Your task to perform on an android device: What is the recent news? Image 0: 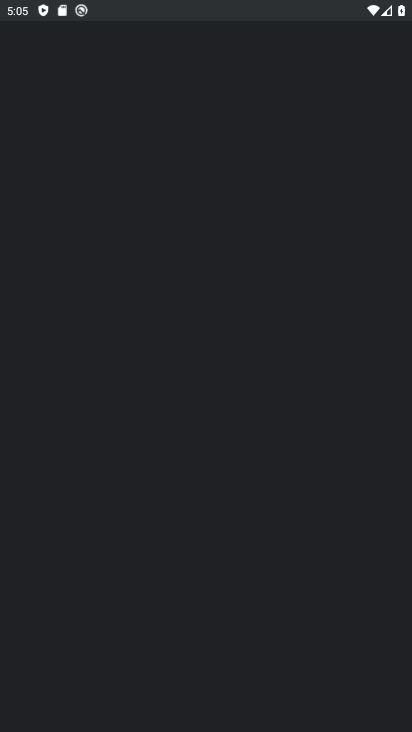
Step 0: press home button
Your task to perform on an android device: What is the recent news? Image 1: 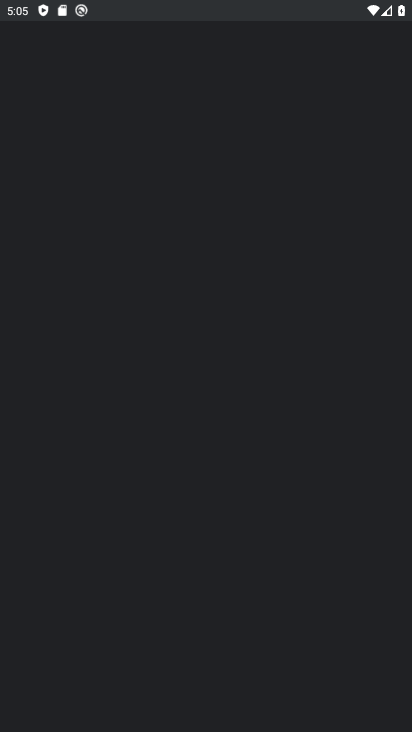
Step 1: click (155, 181)
Your task to perform on an android device: What is the recent news? Image 2: 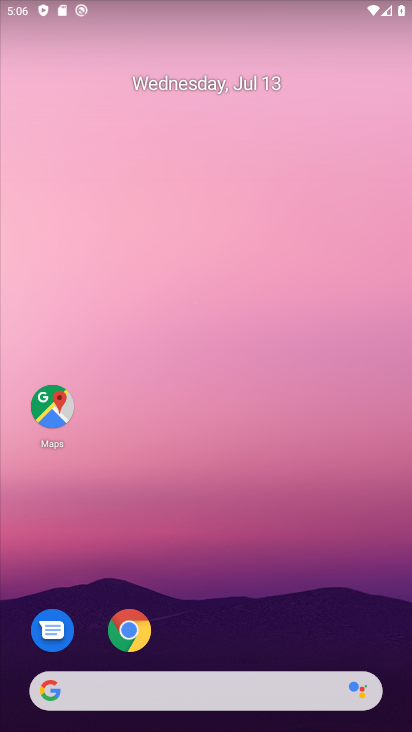
Step 2: click (130, 634)
Your task to perform on an android device: What is the recent news? Image 3: 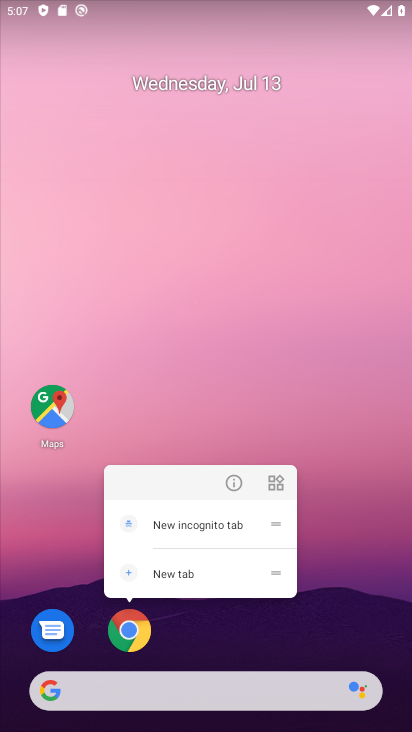
Step 3: click (130, 641)
Your task to perform on an android device: What is the recent news? Image 4: 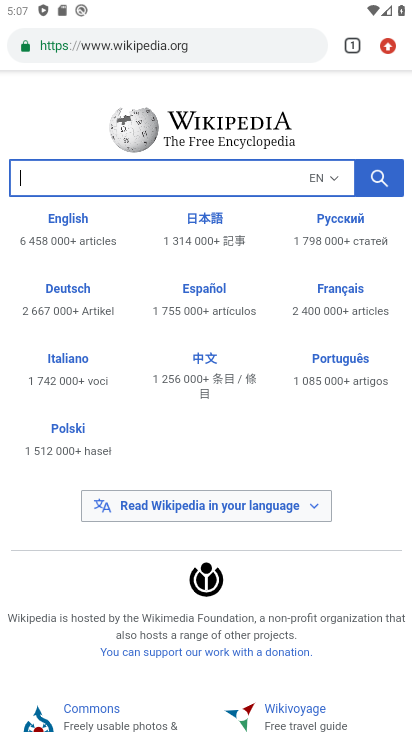
Step 4: click (128, 48)
Your task to perform on an android device: What is the recent news? Image 5: 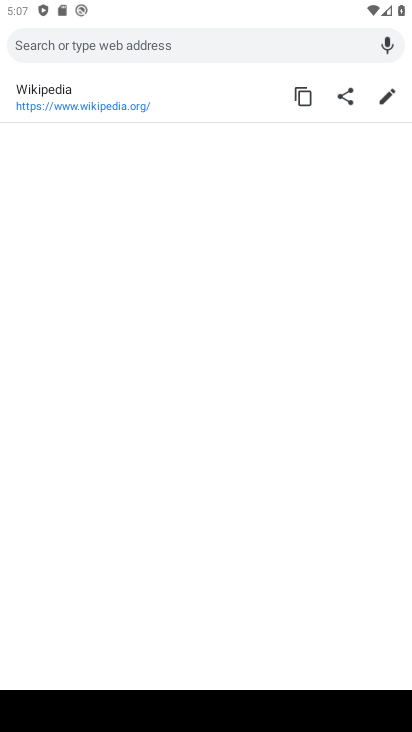
Step 5: type "What is the recent news?"
Your task to perform on an android device: What is the recent news? Image 6: 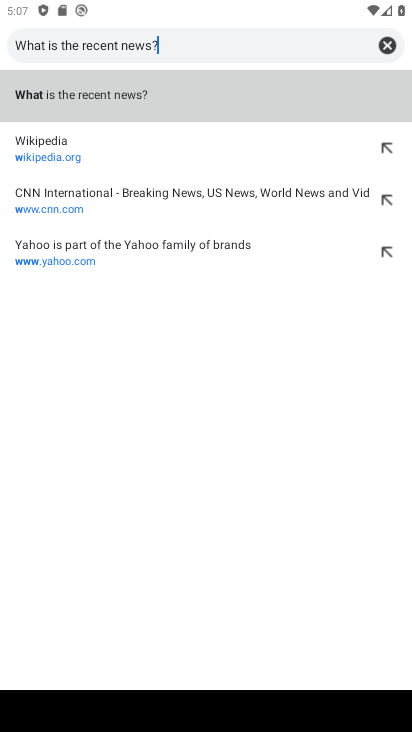
Step 6: type ""
Your task to perform on an android device: What is the recent news? Image 7: 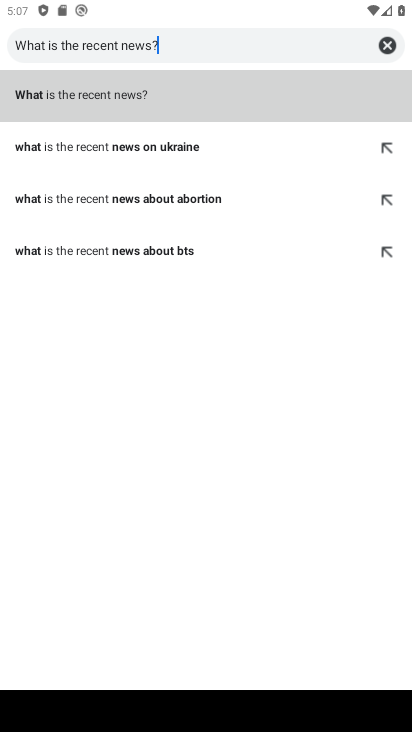
Step 7: click (99, 93)
Your task to perform on an android device: What is the recent news? Image 8: 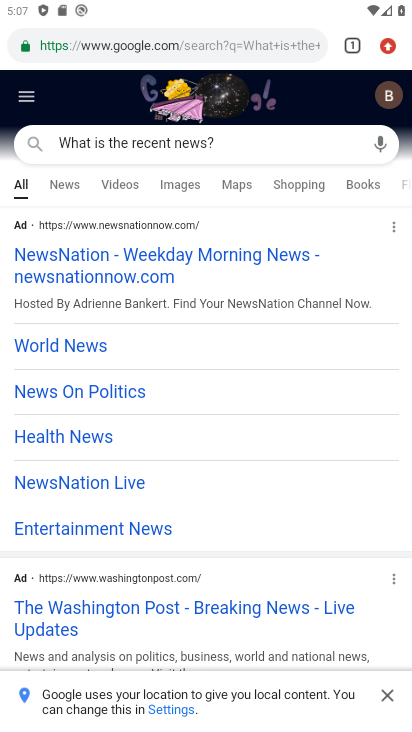
Step 8: task complete